Your task to perform on an android device: Search for the new Nike Air Max 270 on Nike.com Image 0: 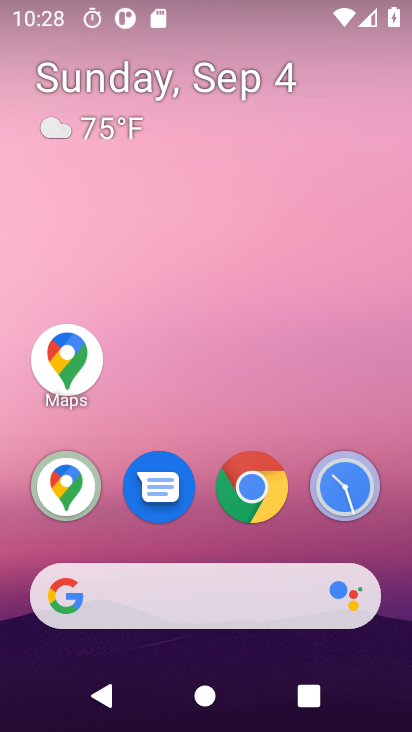
Step 0: click (249, 413)
Your task to perform on an android device: Search for the new Nike Air Max 270 on Nike.com Image 1: 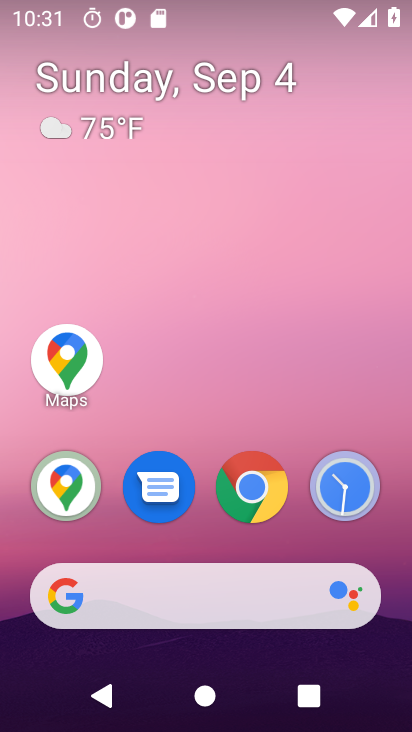
Step 1: task complete